Your task to perform on an android device: uninstall "Duolingo: language lessons" Image 0: 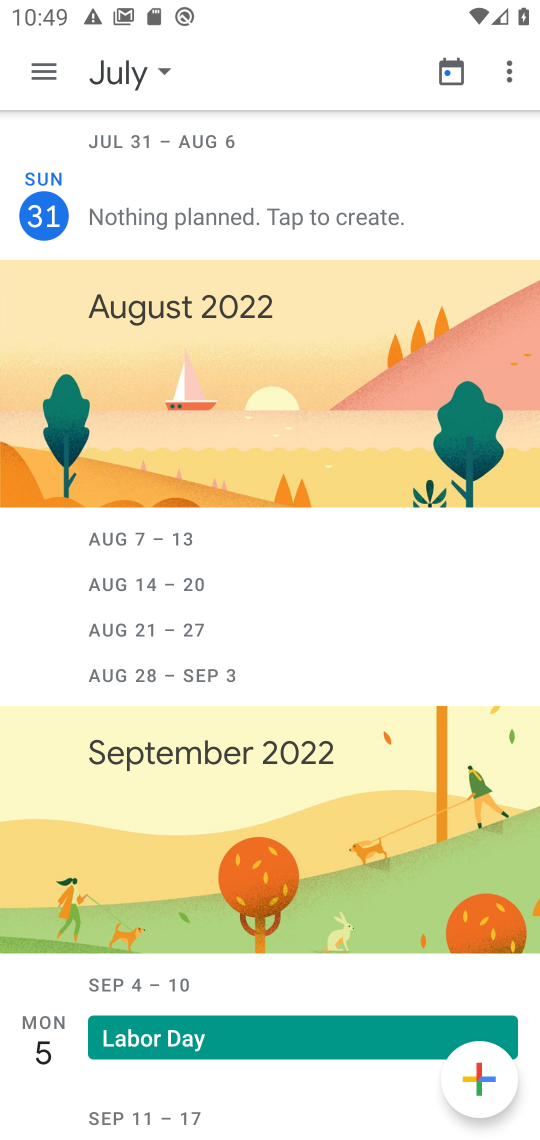
Step 0: press home button
Your task to perform on an android device: uninstall "Duolingo: language lessons" Image 1: 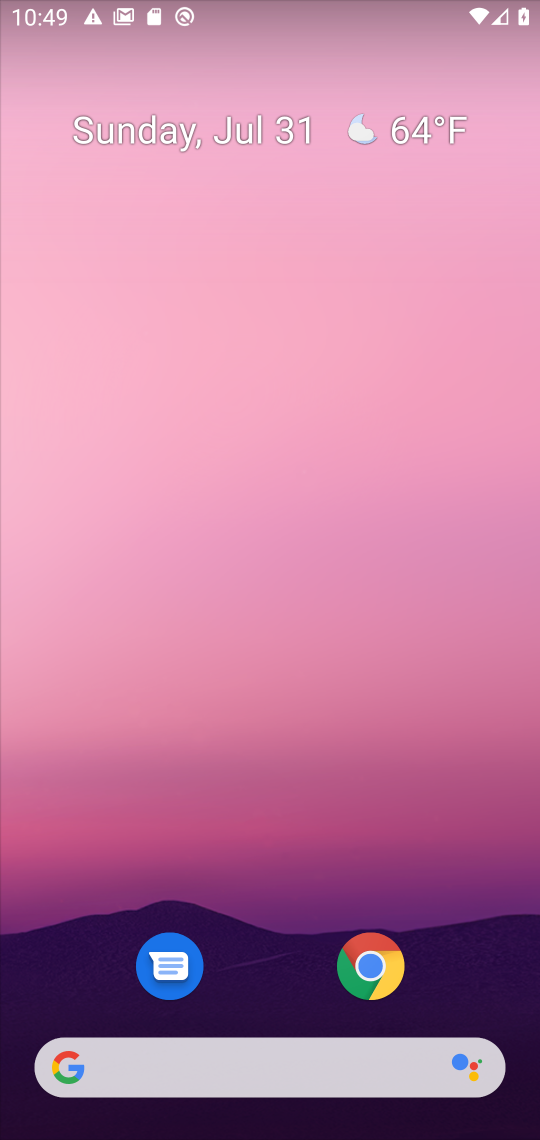
Step 1: drag from (248, 961) to (385, 4)
Your task to perform on an android device: uninstall "Duolingo: language lessons" Image 2: 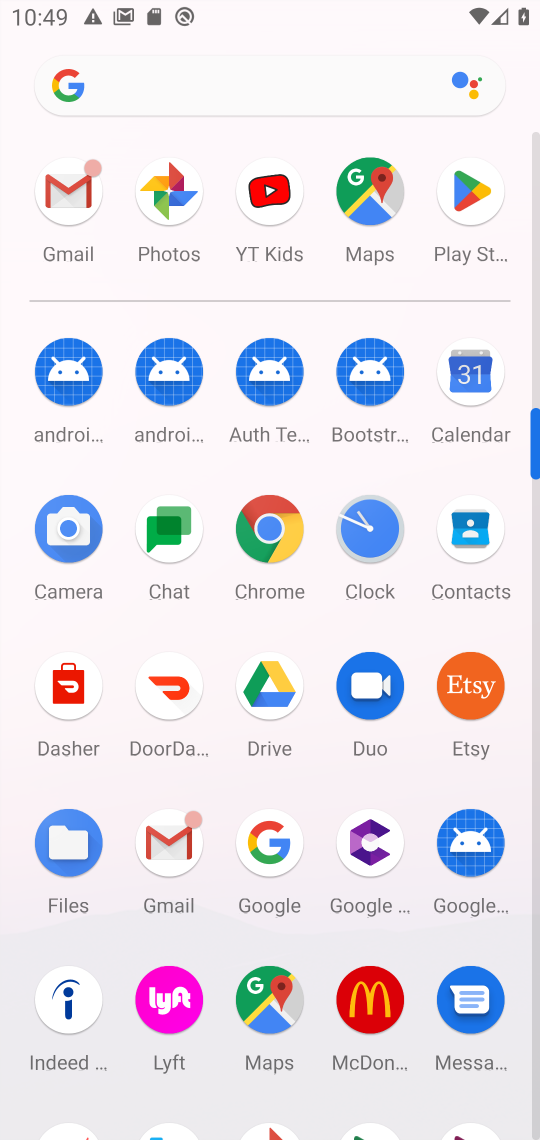
Step 2: click (488, 221)
Your task to perform on an android device: uninstall "Duolingo: language lessons" Image 3: 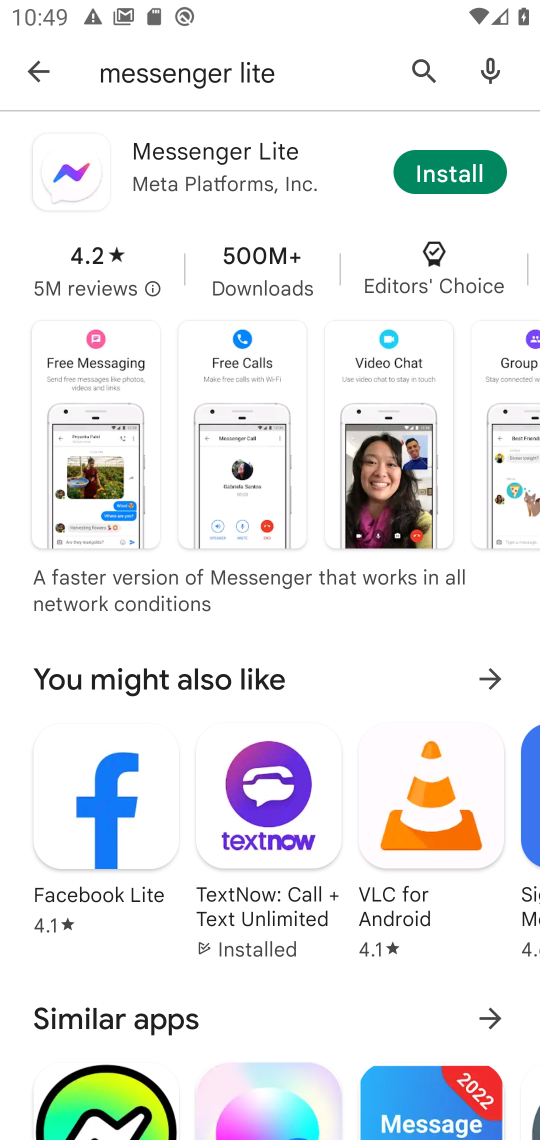
Step 3: click (181, 79)
Your task to perform on an android device: uninstall "Duolingo: language lessons" Image 4: 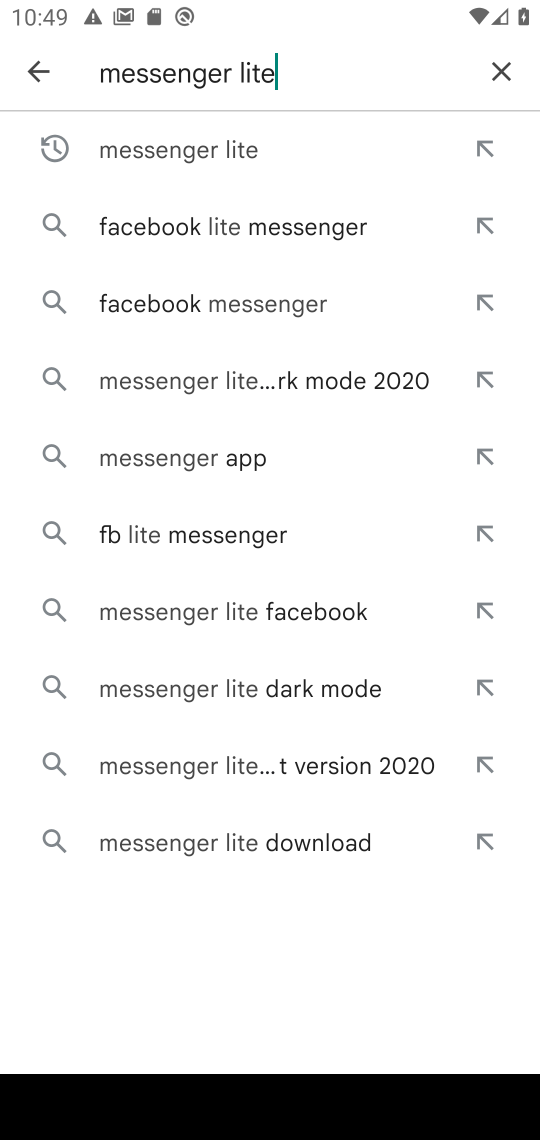
Step 4: click (501, 76)
Your task to perform on an android device: uninstall "Duolingo: language lessons" Image 5: 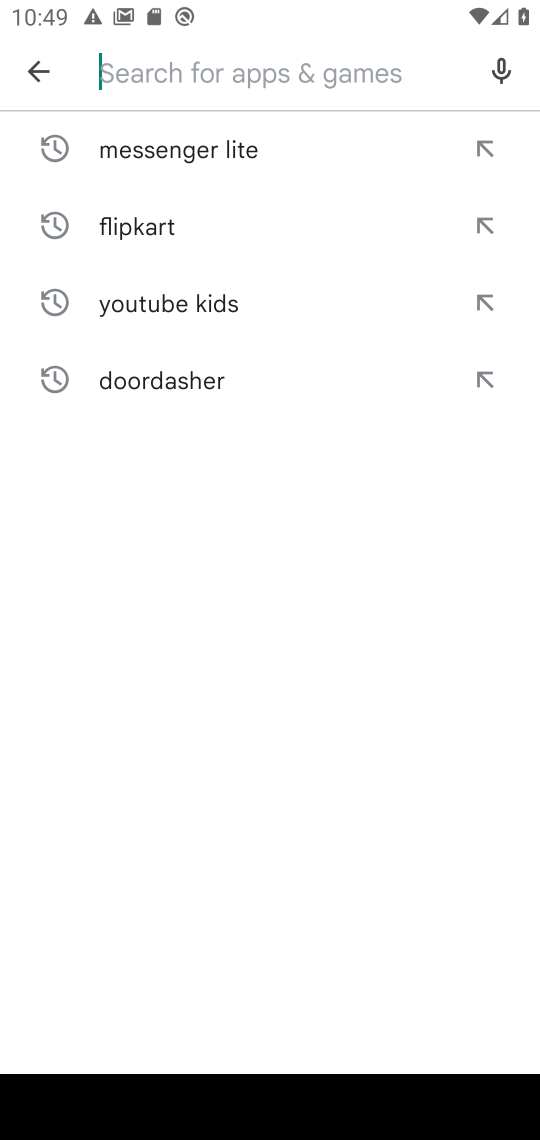
Step 5: type "duolingo"
Your task to perform on an android device: uninstall "Duolingo: language lessons" Image 6: 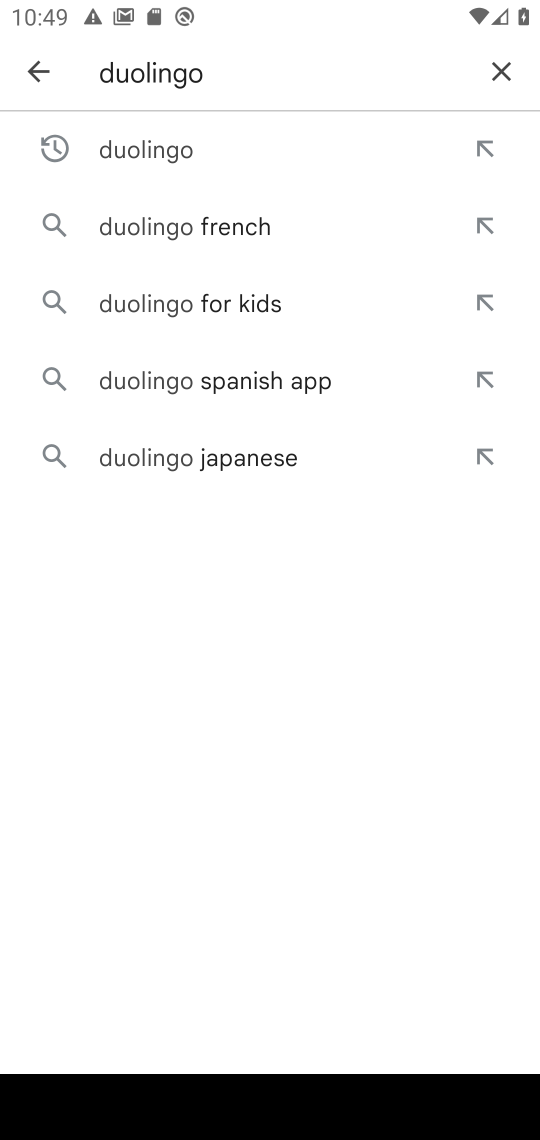
Step 6: click (187, 160)
Your task to perform on an android device: uninstall "Duolingo: language lessons" Image 7: 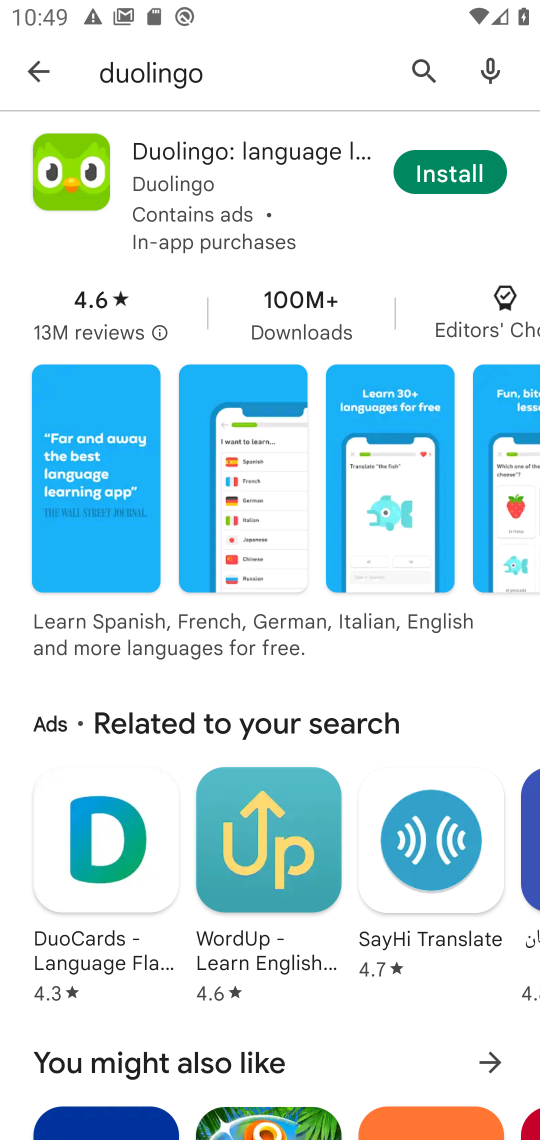
Step 7: task complete